Your task to perform on an android device: When is my next appointment? Image 0: 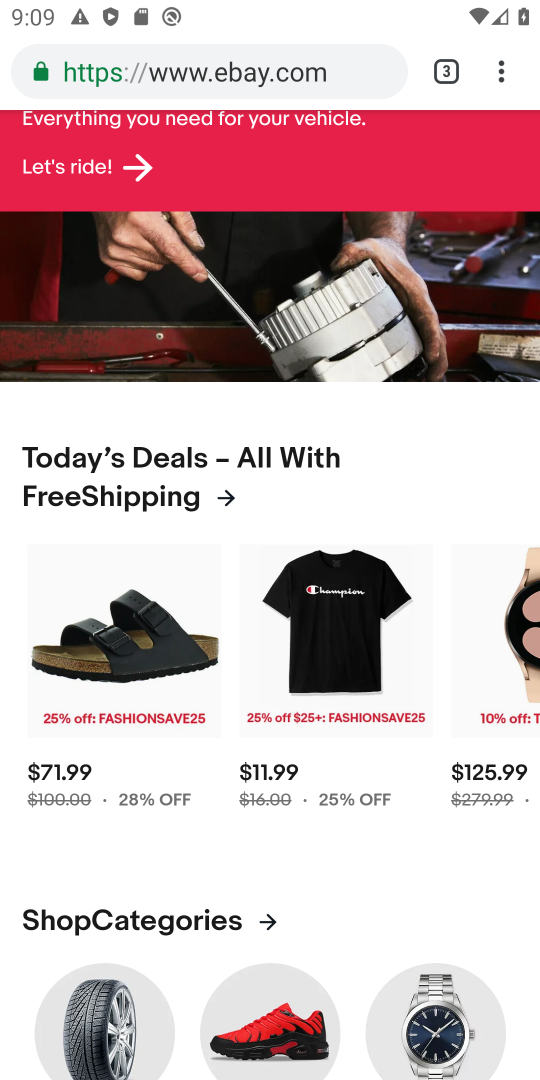
Step 0: press home button
Your task to perform on an android device: When is my next appointment? Image 1: 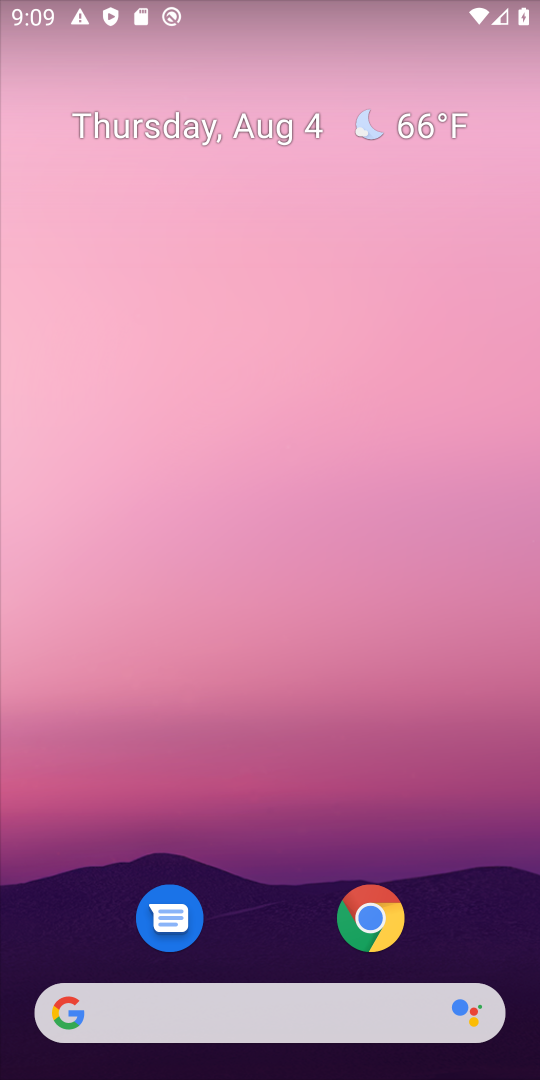
Step 1: drag from (272, 954) to (337, 141)
Your task to perform on an android device: When is my next appointment? Image 2: 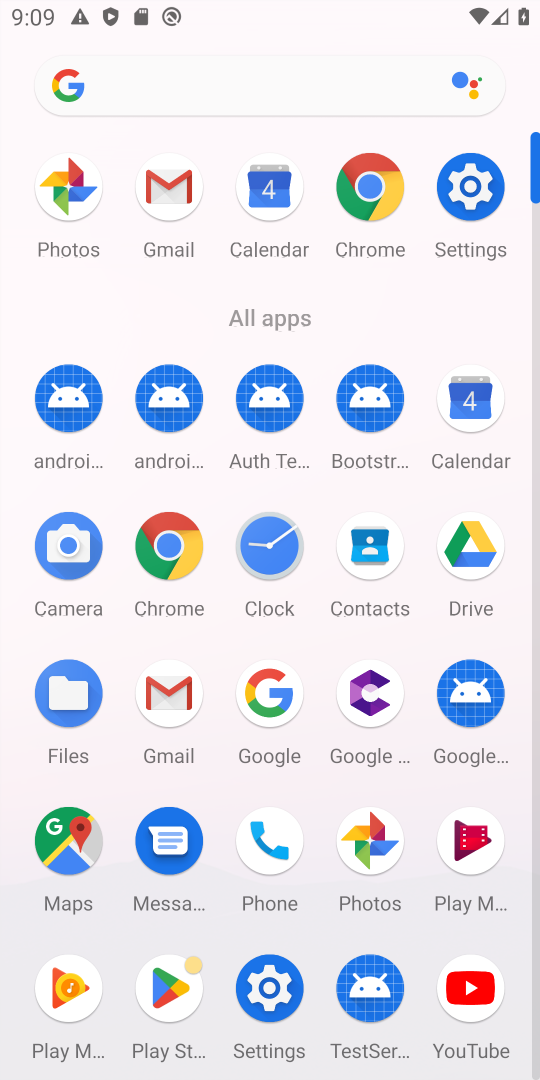
Step 2: click (466, 396)
Your task to perform on an android device: When is my next appointment? Image 3: 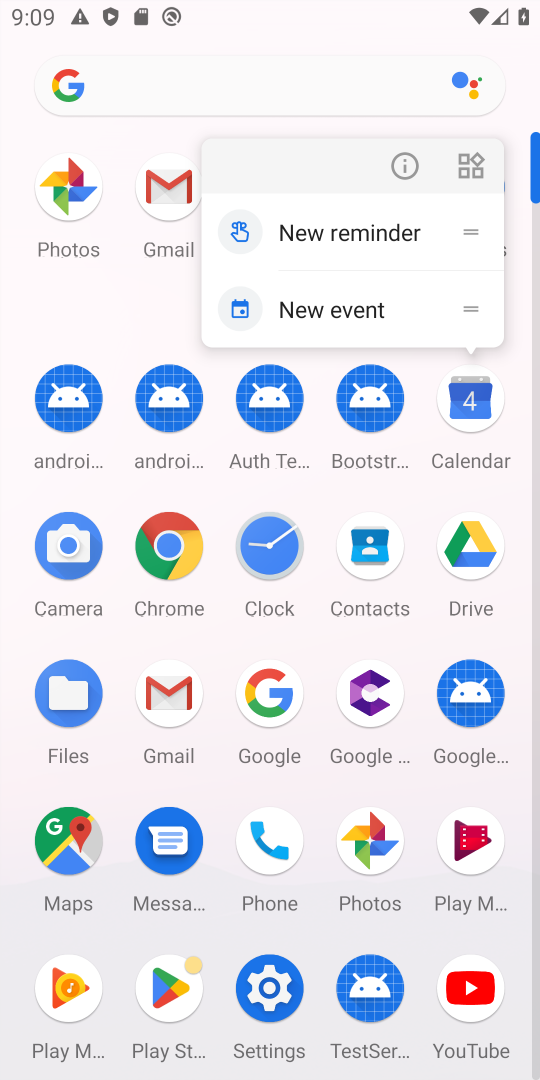
Step 3: click (466, 396)
Your task to perform on an android device: When is my next appointment? Image 4: 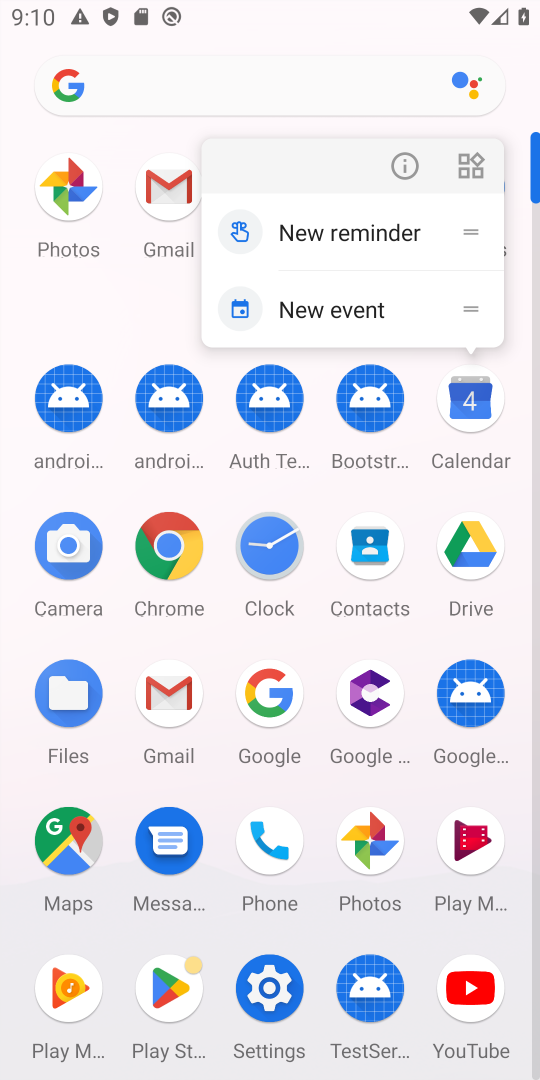
Step 4: click (469, 408)
Your task to perform on an android device: When is my next appointment? Image 5: 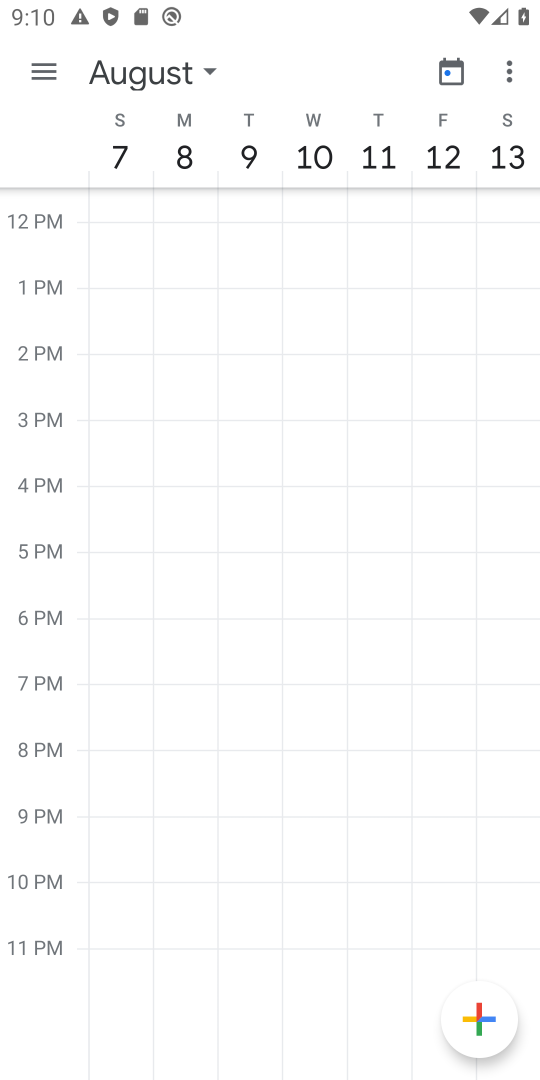
Step 5: click (117, 156)
Your task to perform on an android device: When is my next appointment? Image 6: 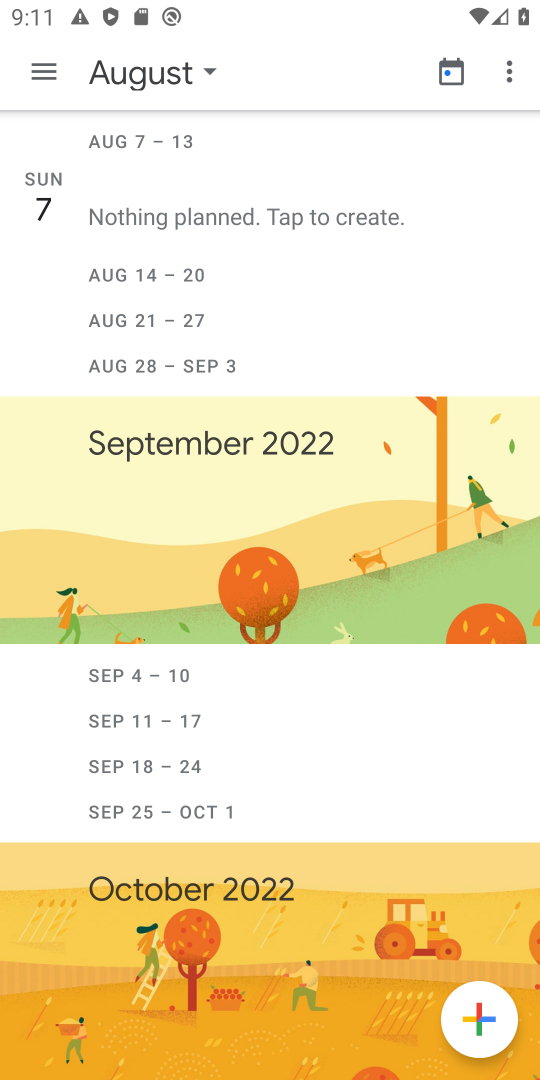
Step 6: task complete